Your task to perform on an android device: turn on translation in the chrome app Image 0: 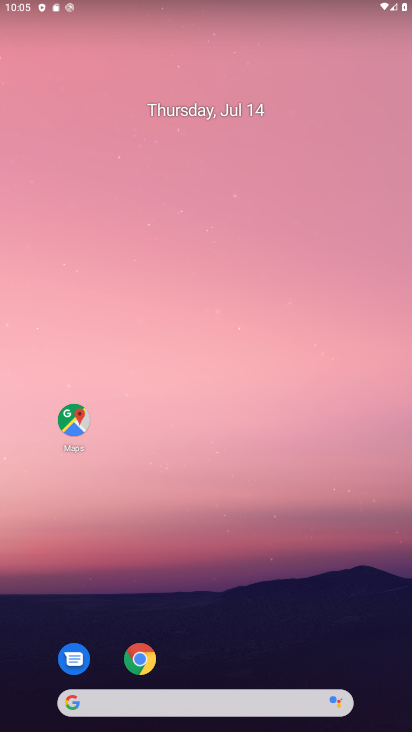
Step 0: drag from (181, 691) to (297, 146)
Your task to perform on an android device: turn on translation in the chrome app Image 1: 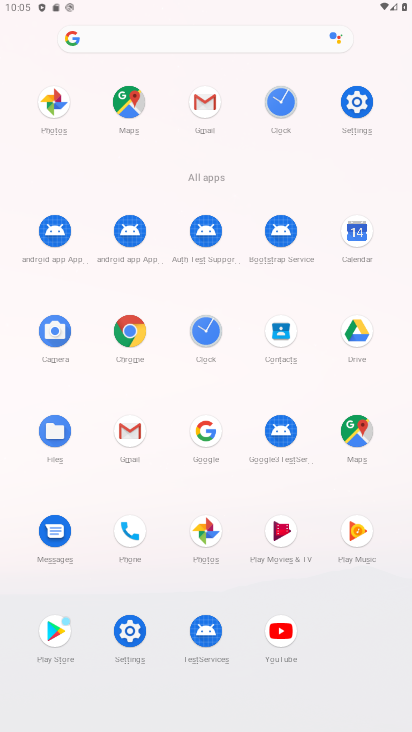
Step 1: click (140, 343)
Your task to perform on an android device: turn on translation in the chrome app Image 2: 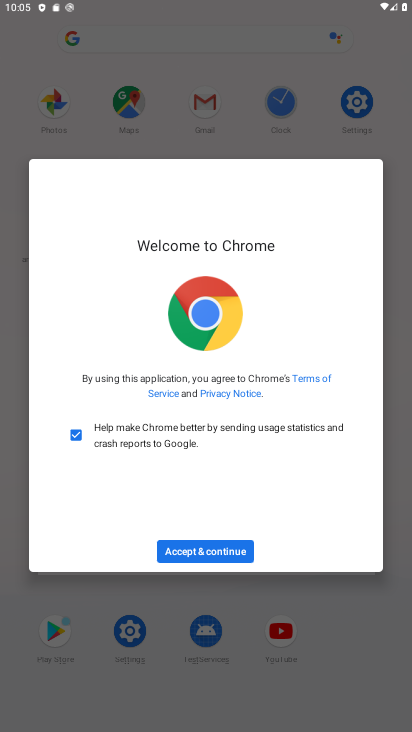
Step 2: click (206, 550)
Your task to perform on an android device: turn on translation in the chrome app Image 3: 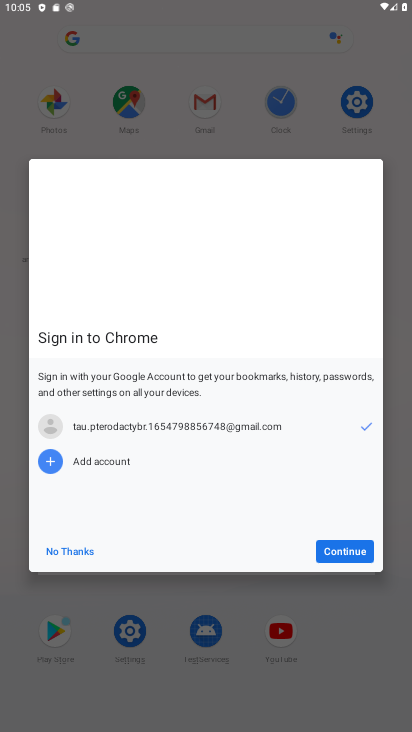
Step 3: click (336, 544)
Your task to perform on an android device: turn on translation in the chrome app Image 4: 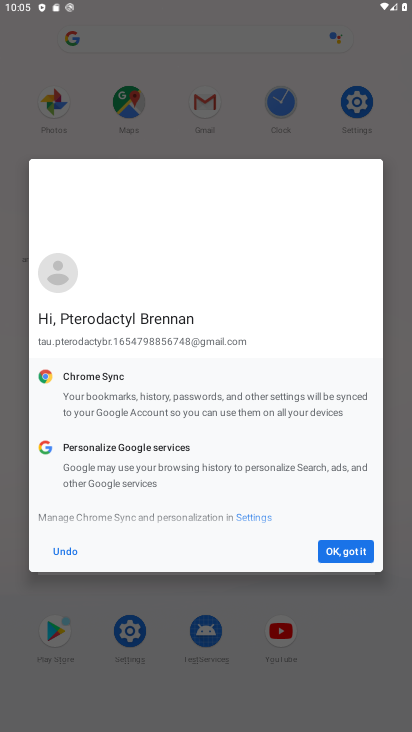
Step 4: click (342, 545)
Your task to perform on an android device: turn on translation in the chrome app Image 5: 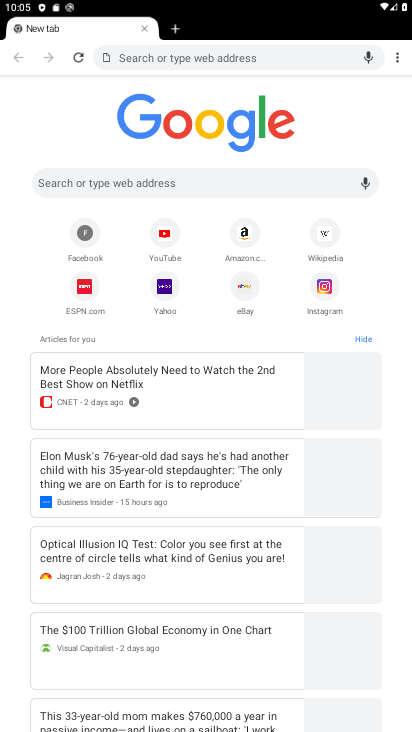
Step 5: drag from (406, 60) to (341, 260)
Your task to perform on an android device: turn on translation in the chrome app Image 6: 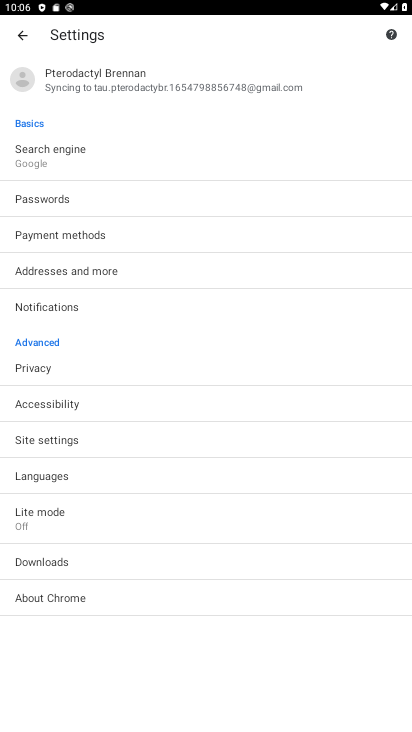
Step 6: click (96, 483)
Your task to perform on an android device: turn on translation in the chrome app Image 7: 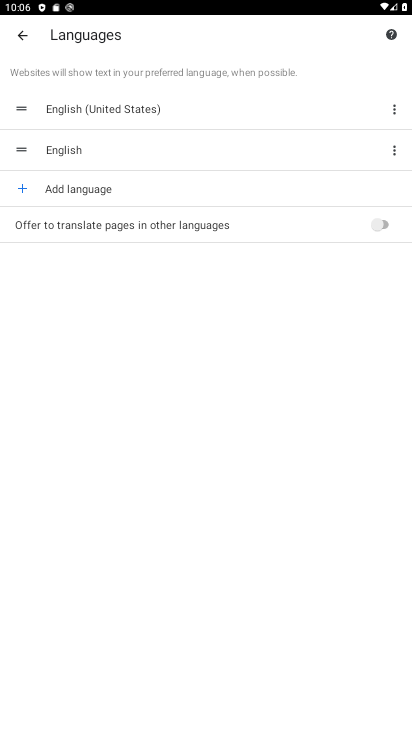
Step 7: click (383, 221)
Your task to perform on an android device: turn on translation in the chrome app Image 8: 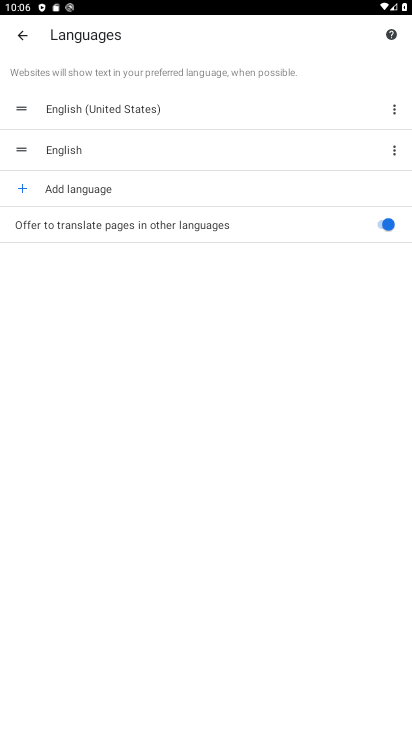
Step 8: task complete